Your task to perform on an android device: Is it going to rain today? Image 0: 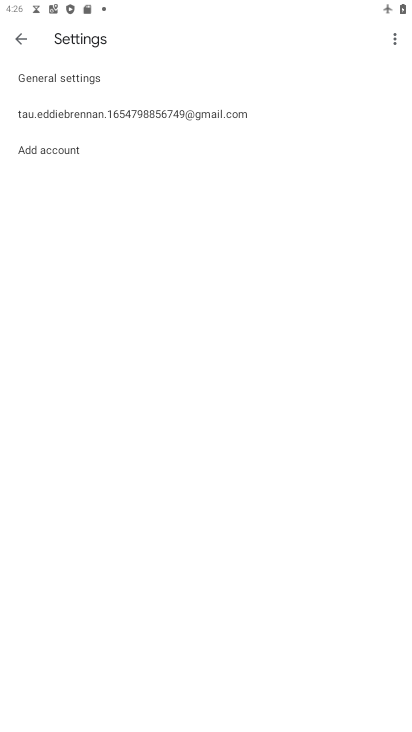
Step 0: press home button
Your task to perform on an android device: Is it going to rain today? Image 1: 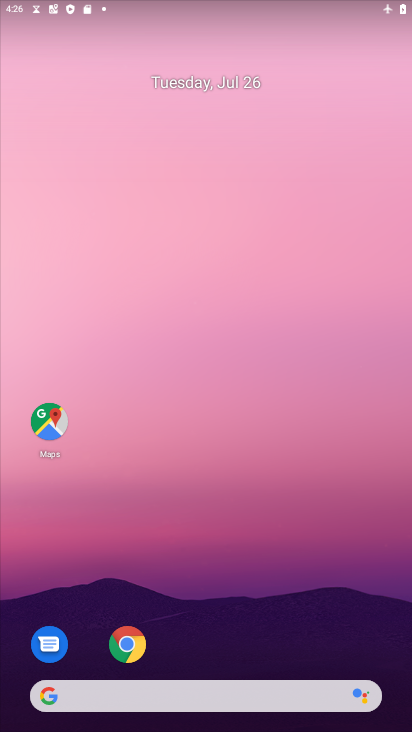
Step 1: click (127, 644)
Your task to perform on an android device: Is it going to rain today? Image 2: 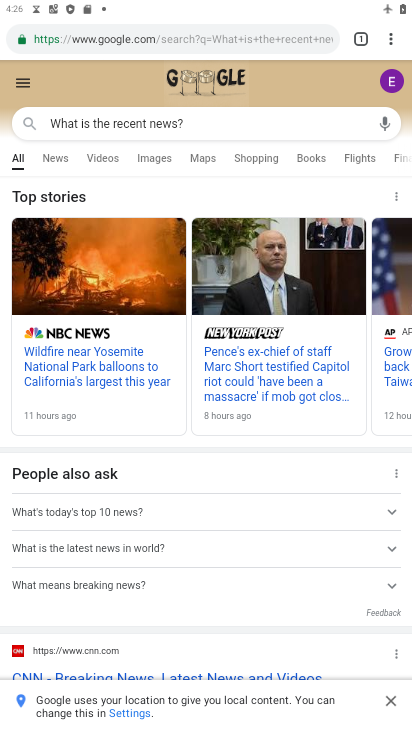
Step 2: click (196, 39)
Your task to perform on an android device: Is it going to rain today? Image 3: 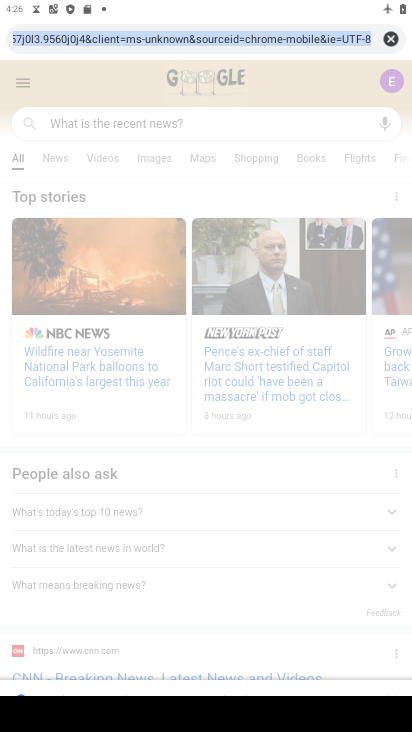
Step 3: type "Is it going to rain today?"
Your task to perform on an android device: Is it going to rain today? Image 4: 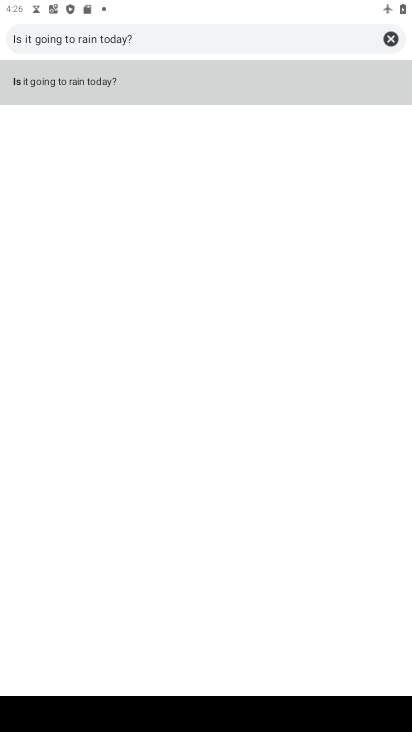
Step 4: click (207, 85)
Your task to perform on an android device: Is it going to rain today? Image 5: 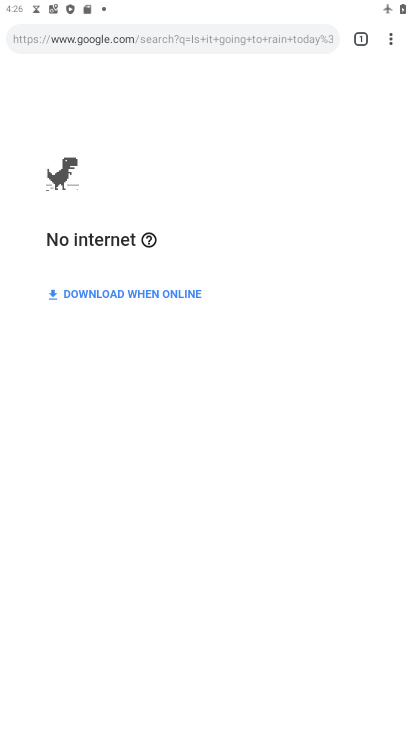
Step 5: task complete